Your task to perform on an android device: open app "WhatsApp Messenger" (install if not already installed) and enter user name: "cartons@outlook.com" and password: "approximated" Image 0: 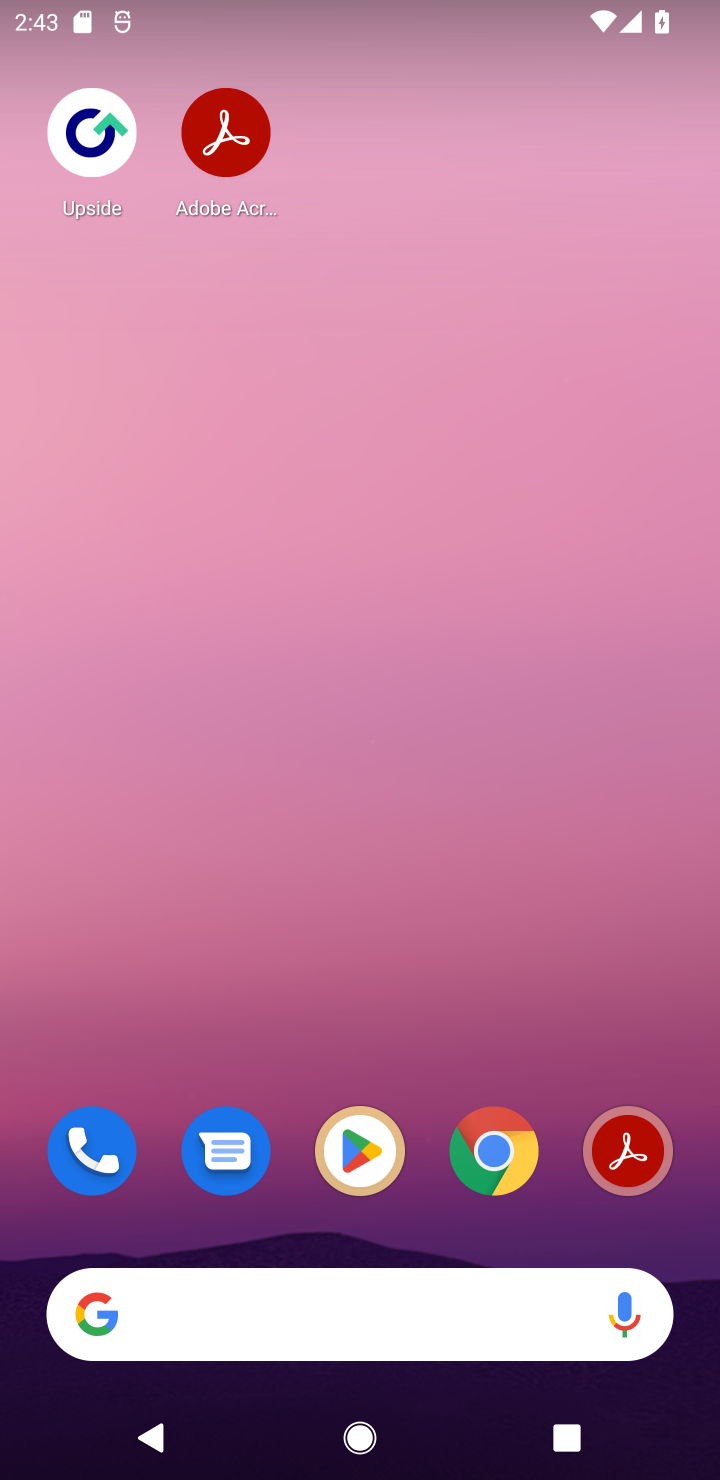
Step 0: click (378, 1164)
Your task to perform on an android device: open app "WhatsApp Messenger" (install if not already installed) and enter user name: "cartons@outlook.com" and password: "approximated" Image 1: 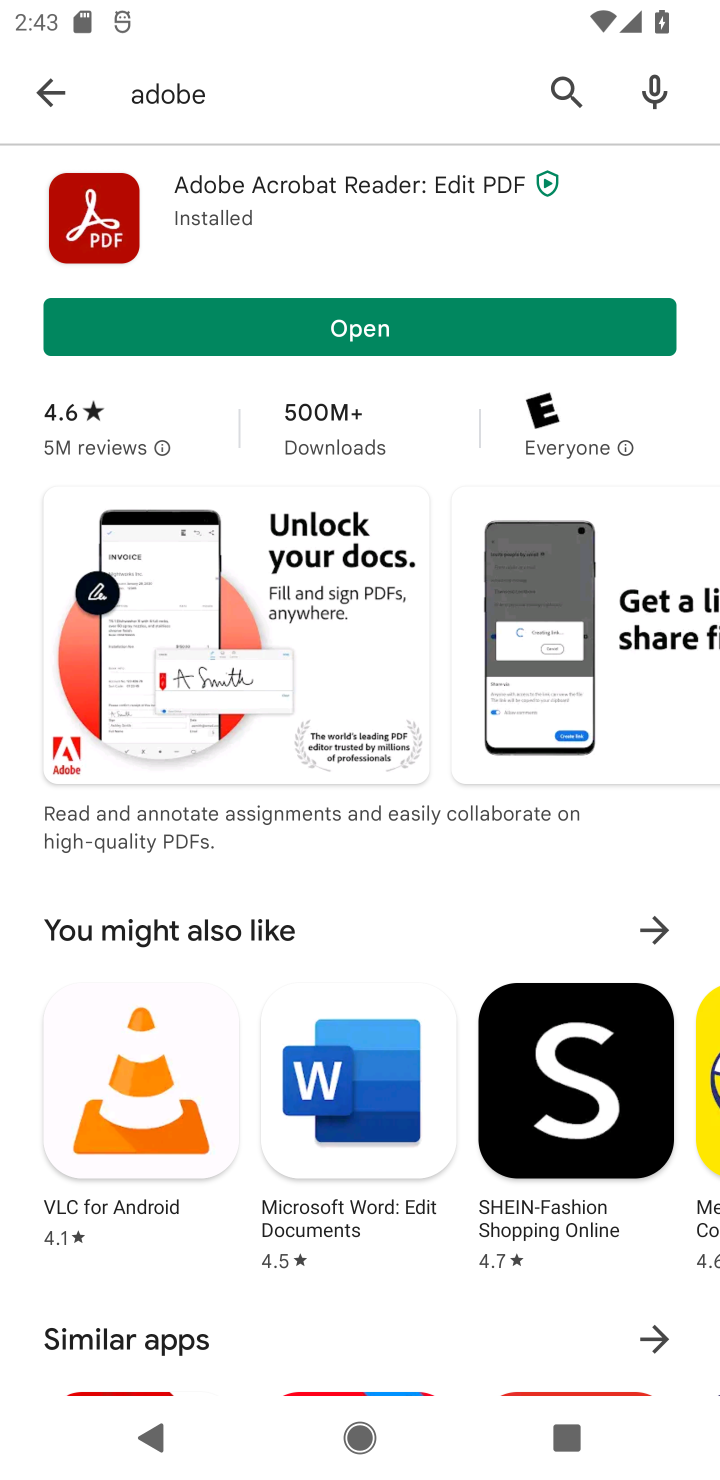
Step 1: click (580, 98)
Your task to perform on an android device: open app "WhatsApp Messenger" (install if not already installed) and enter user name: "cartons@outlook.com" and password: "approximated" Image 2: 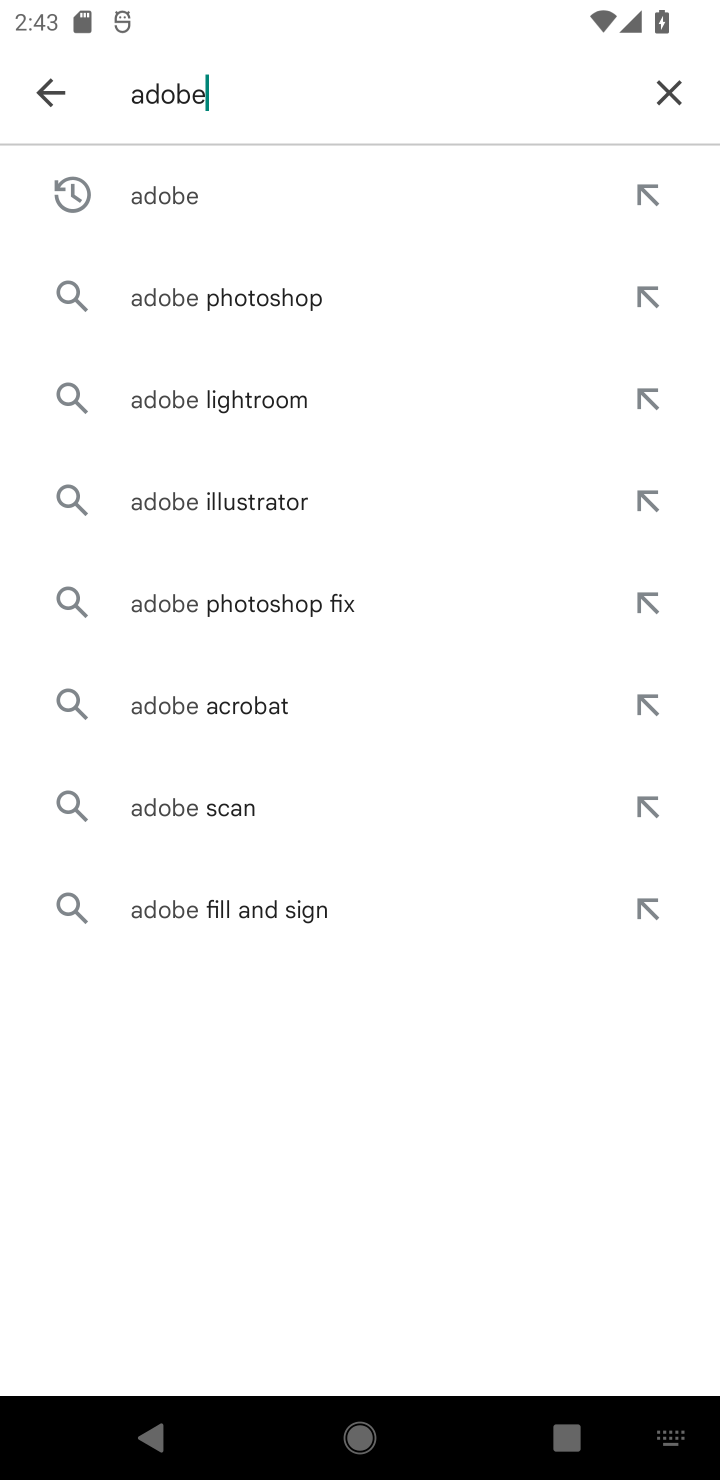
Step 2: click (649, 98)
Your task to perform on an android device: open app "WhatsApp Messenger" (install if not already installed) and enter user name: "cartons@outlook.com" and password: "approximated" Image 3: 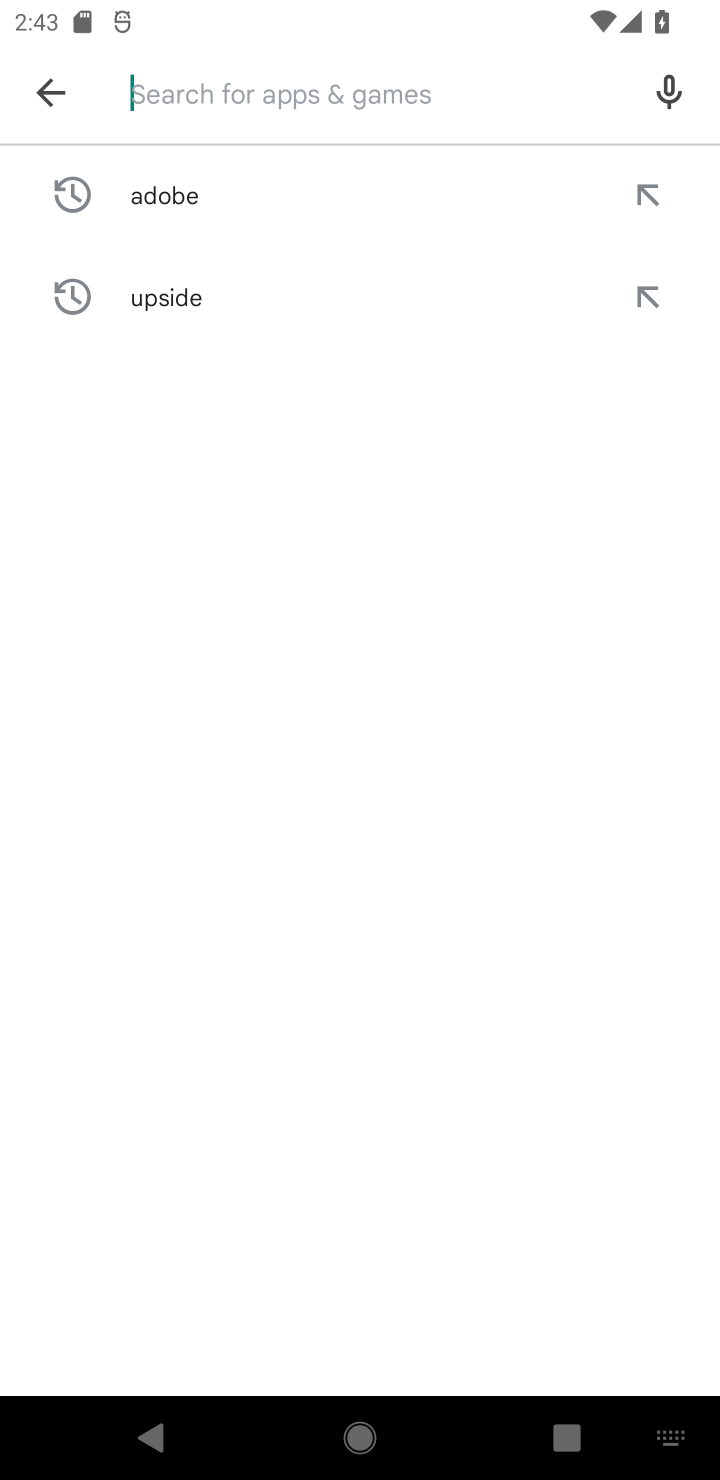
Step 3: type "whatsaap"
Your task to perform on an android device: open app "WhatsApp Messenger" (install if not already installed) and enter user name: "cartons@outlook.com" and password: "approximated" Image 4: 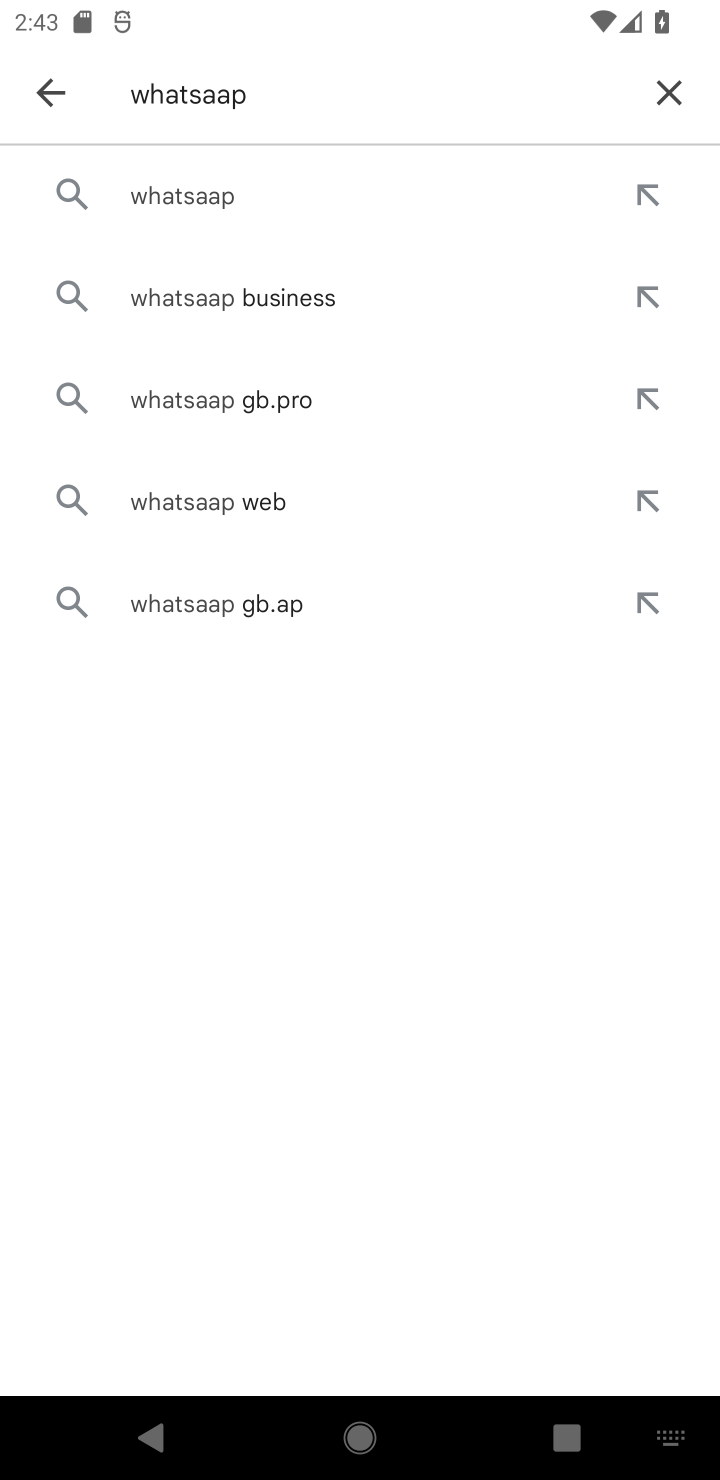
Step 4: click (313, 218)
Your task to perform on an android device: open app "WhatsApp Messenger" (install if not already installed) and enter user name: "cartons@outlook.com" and password: "approximated" Image 5: 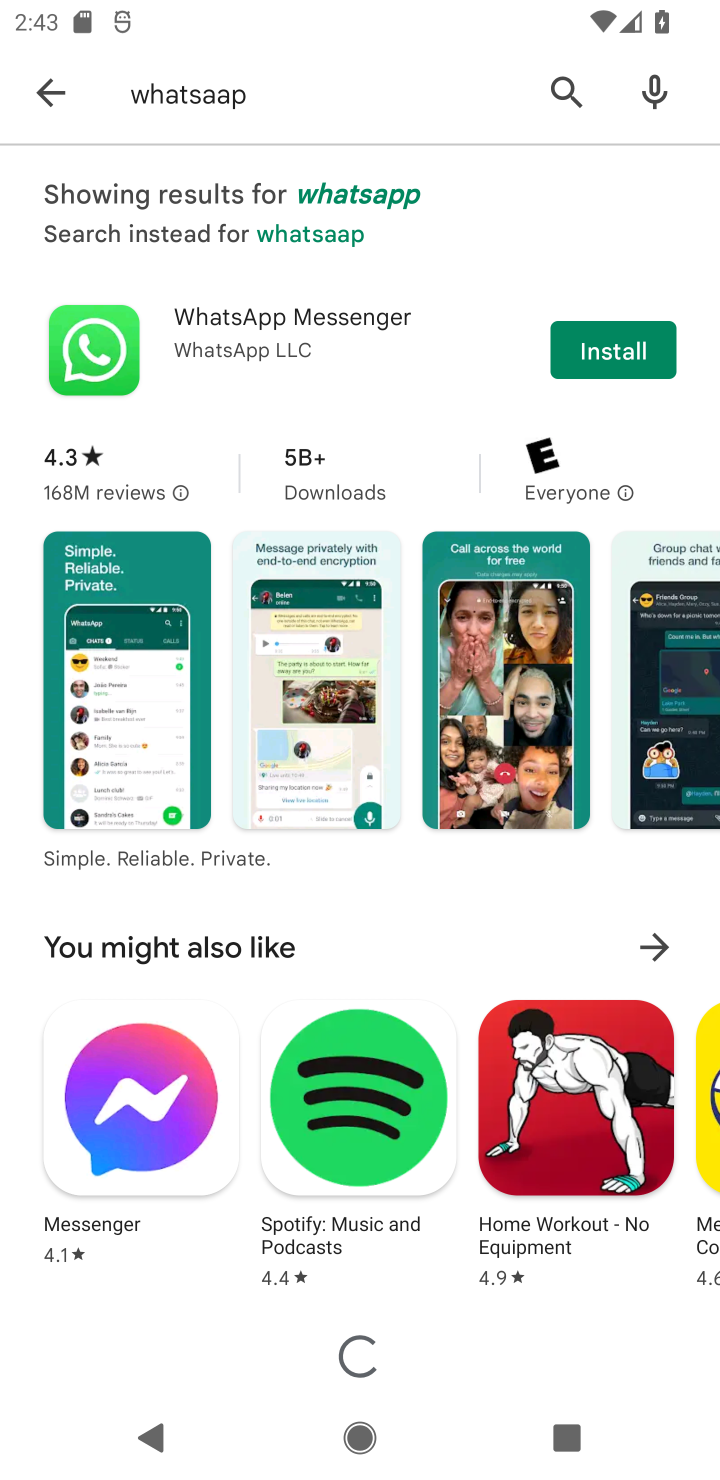
Step 5: task complete